Your task to perform on an android device: Open eBay Image 0: 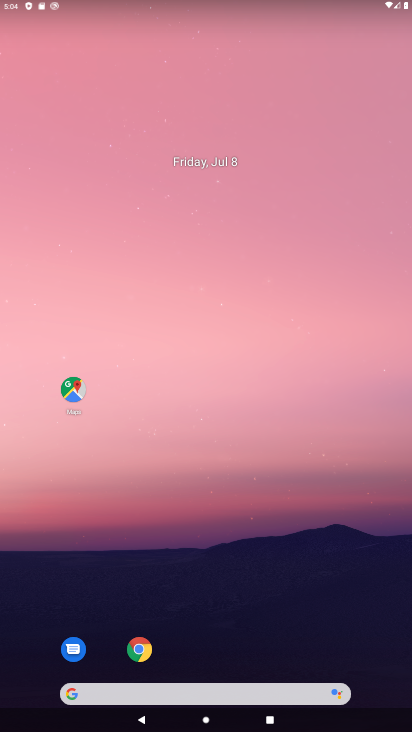
Step 0: drag from (325, 384) to (314, 4)
Your task to perform on an android device: Open eBay Image 1: 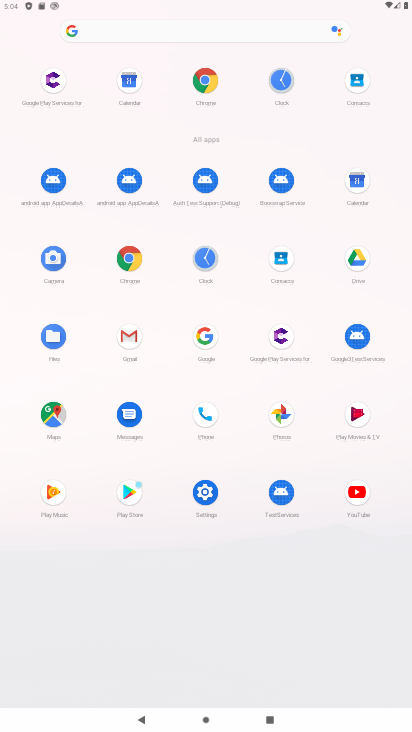
Step 1: click (204, 77)
Your task to perform on an android device: Open eBay Image 2: 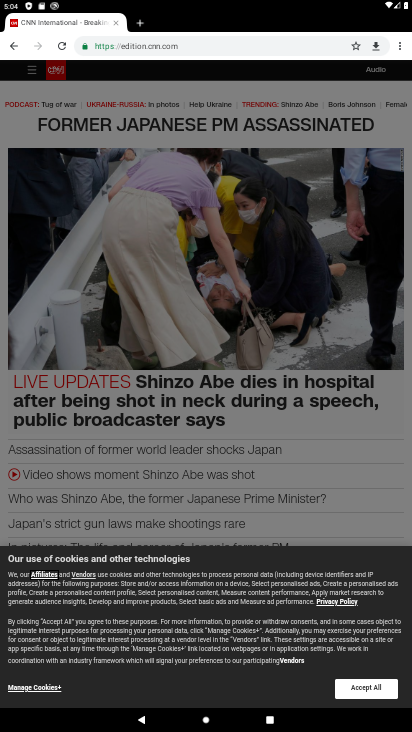
Step 2: click (220, 42)
Your task to perform on an android device: Open eBay Image 3: 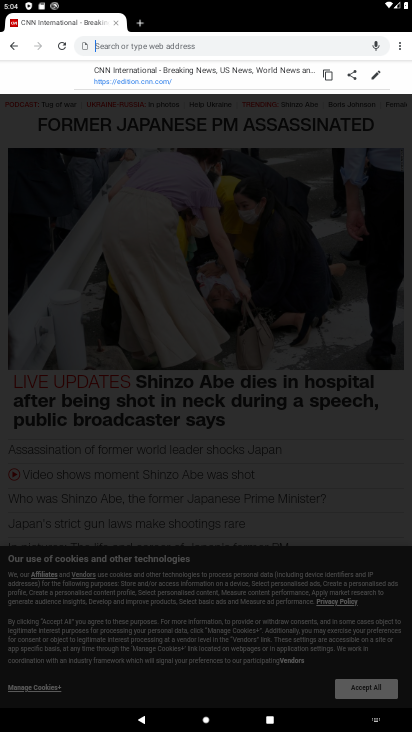
Step 3: type "ebay"
Your task to perform on an android device: Open eBay Image 4: 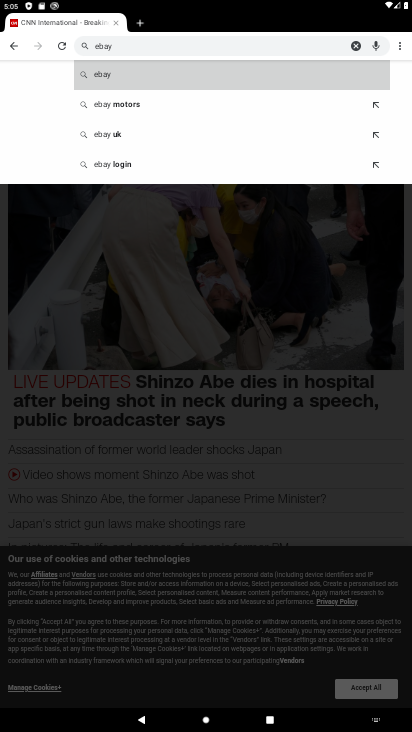
Step 4: click (107, 72)
Your task to perform on an android device: Open eBay Image 5: 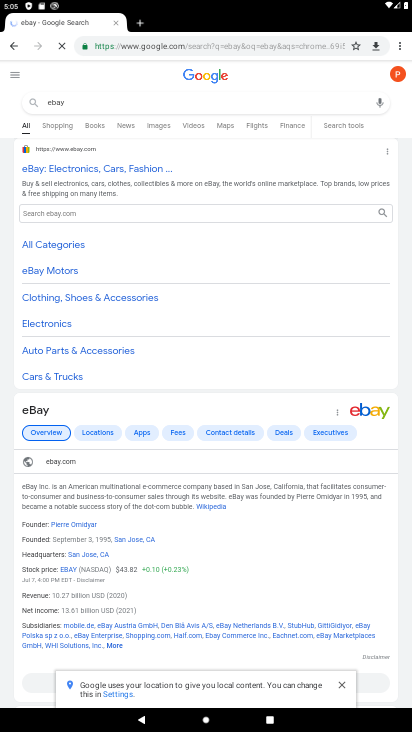
Step 5: click (77, 172)
Your task to perform on an android device: Open eBay Image 6: 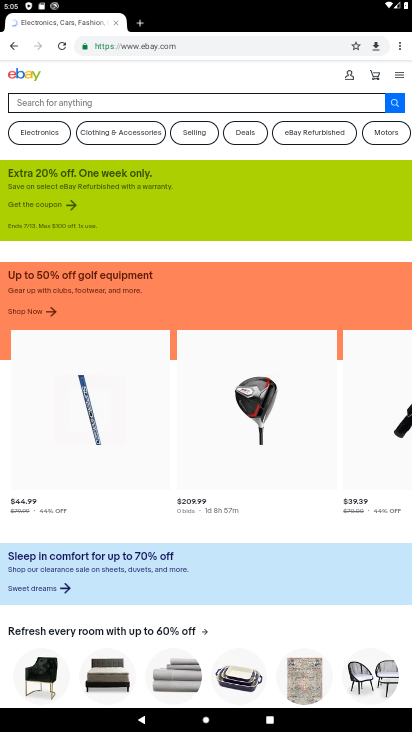
Step 6: task complete